Your task to perform on an android device: change notifications settings Image 0: 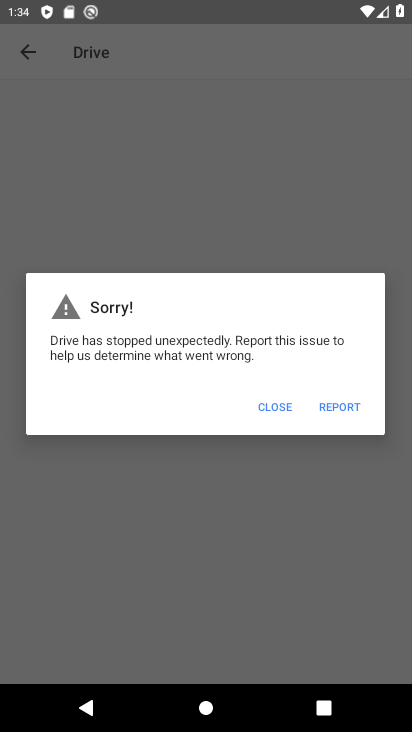
Step 0: press home button
Your task to perform on an android device: change notifications settings Image 1: 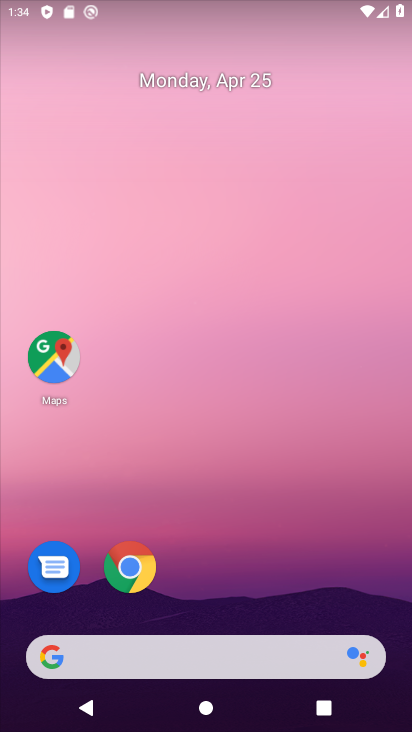
Step 1: drag from (368, 604) to (271, 72)
Your task to perform on an android device: change notifications settings Image 2: 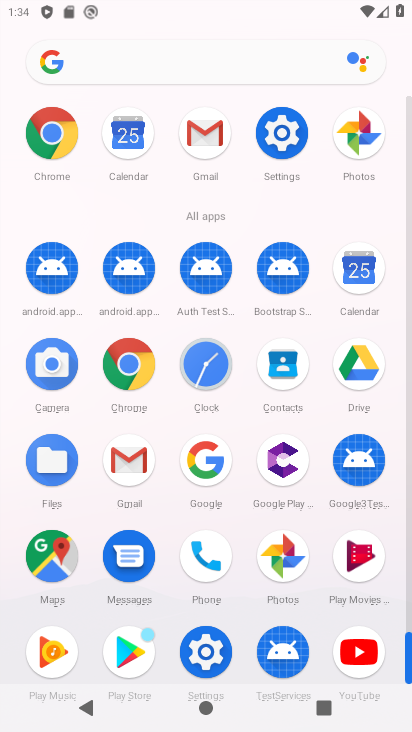
Step 2: click (203, 652)
Your task to perform on an android device: change notifications settings Image 3: 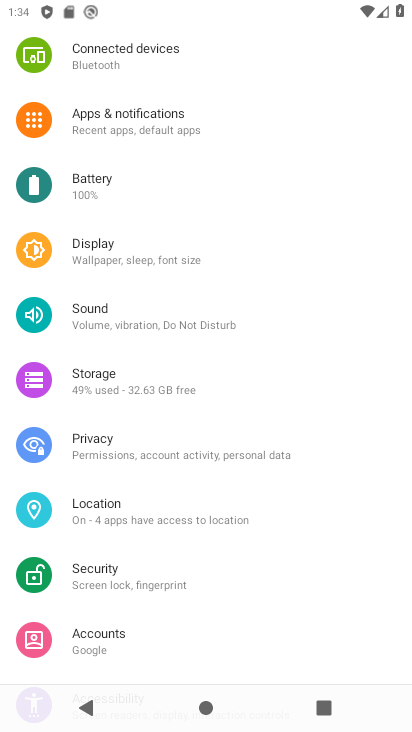
Step 3: click (115, 118)
Your task to perform on an android device: change notifications settings Image 4: 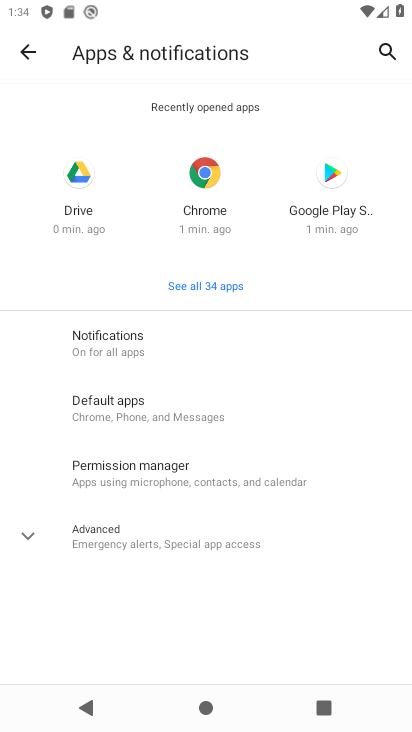
Step 4: click (21, 536)
Your task to perform on an android device: change notifications settings Image 5: 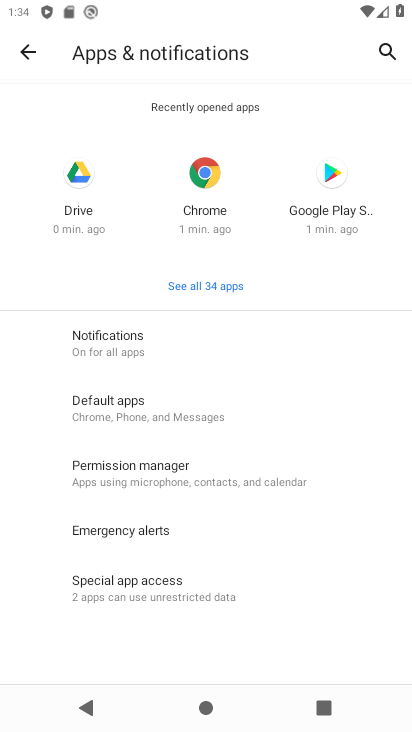
Step 5: drag from (206, 579) to (243, 318)
Your task to perform on an android device: change notifications settings Image 6: 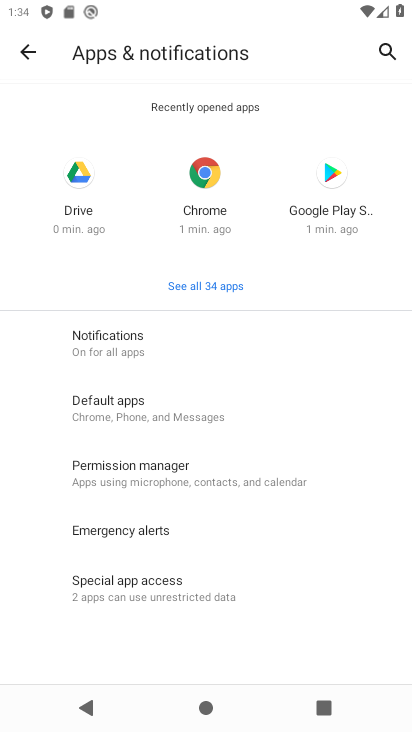
Step 6: click (99, 341)
Your task to perform on an android device: change notifications settings Image 7: 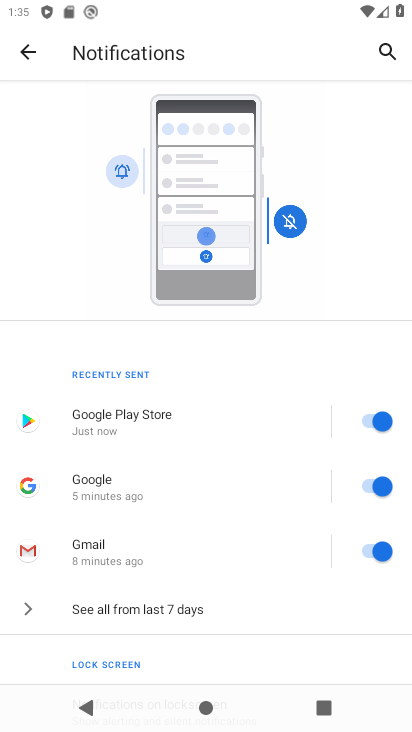
Step 7: drag from (315, 614) to (328, 104)
Your task to perform on an android device: change notifications settings Image 8: 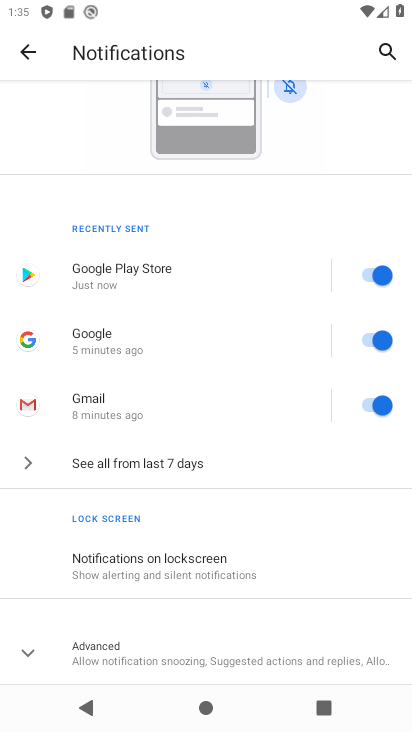
Step 8: click (26, 649)
Your task to perform on an android device: change notifications settings Image 9: 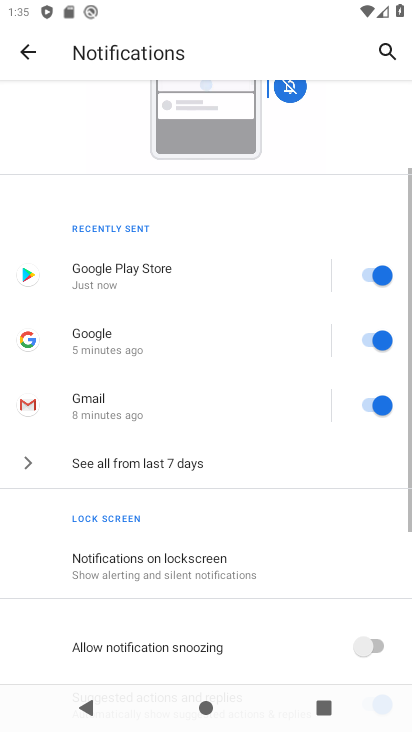
Step 9: drag from (274, 629) to (300, 141)
Your task to perform on an android device: change notifications settings Image 10: 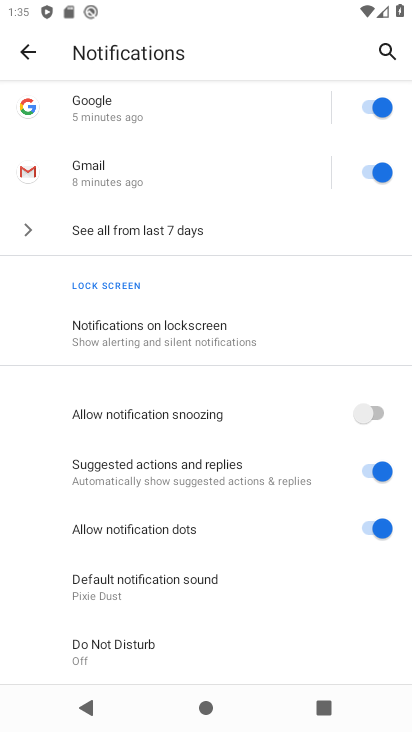
Step 10: drag from (293, 611) to (270, 196)
Your task to perform on an android device: change notifications settings Image 11: 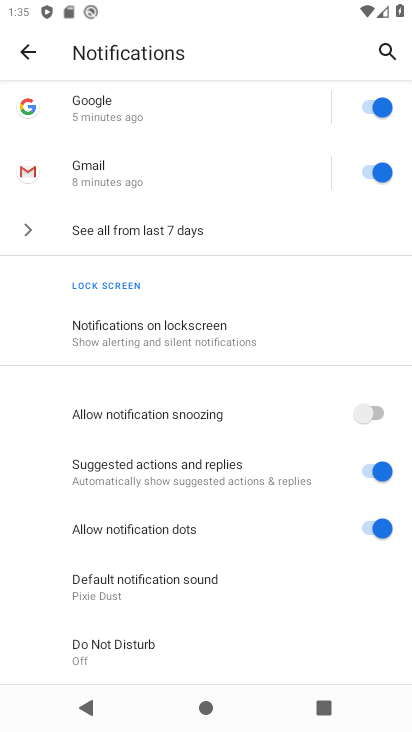
Step 11: click (372, 406)
Your task to perform on an android device: change notifications settings Image 12: 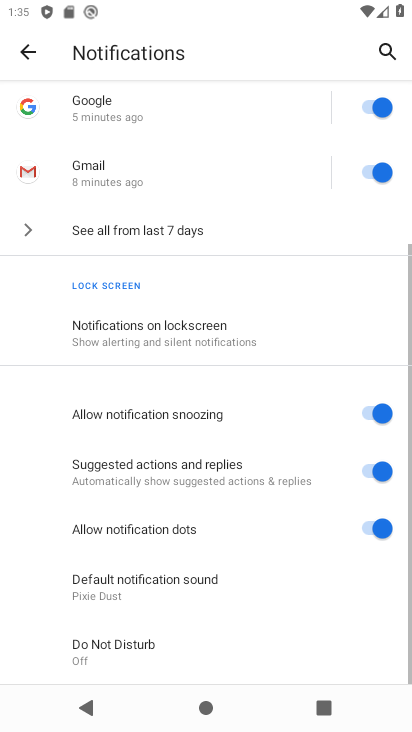
Step 12: click (357, 526)
Your task to perform on an android device: change notifications settings Image 13: 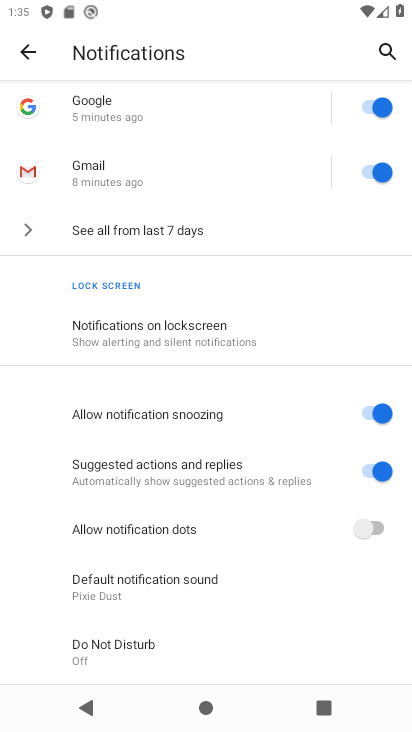
Step 13: task complete